Your task to perform on an android device: uninstall "Google Translate" Image 0: 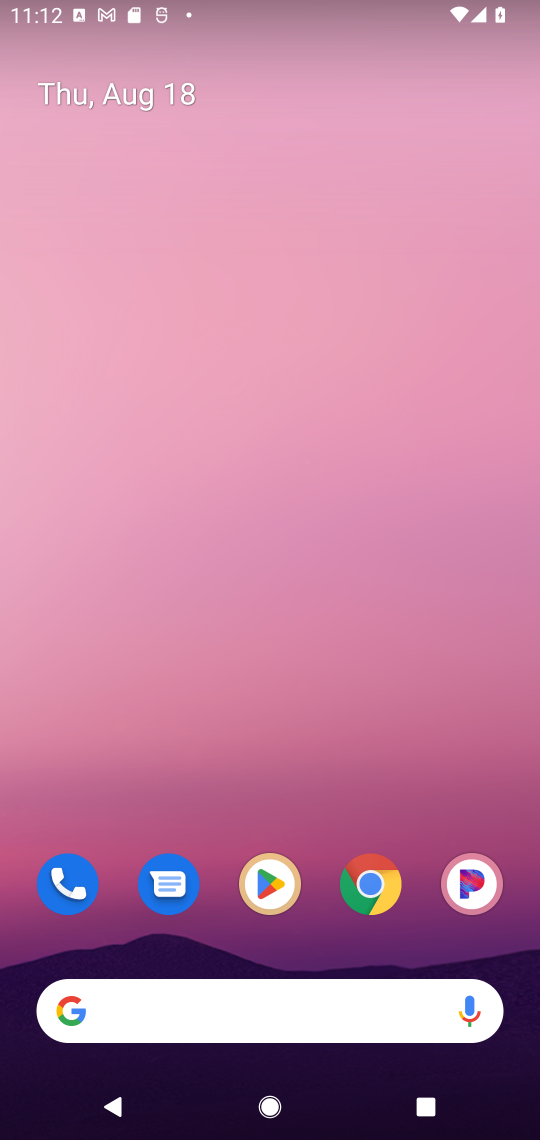
Step 0: drag from (228, 1028) to (314, 20)
Your task to perform on an android device: uninstall "Google Translate" Image 1: 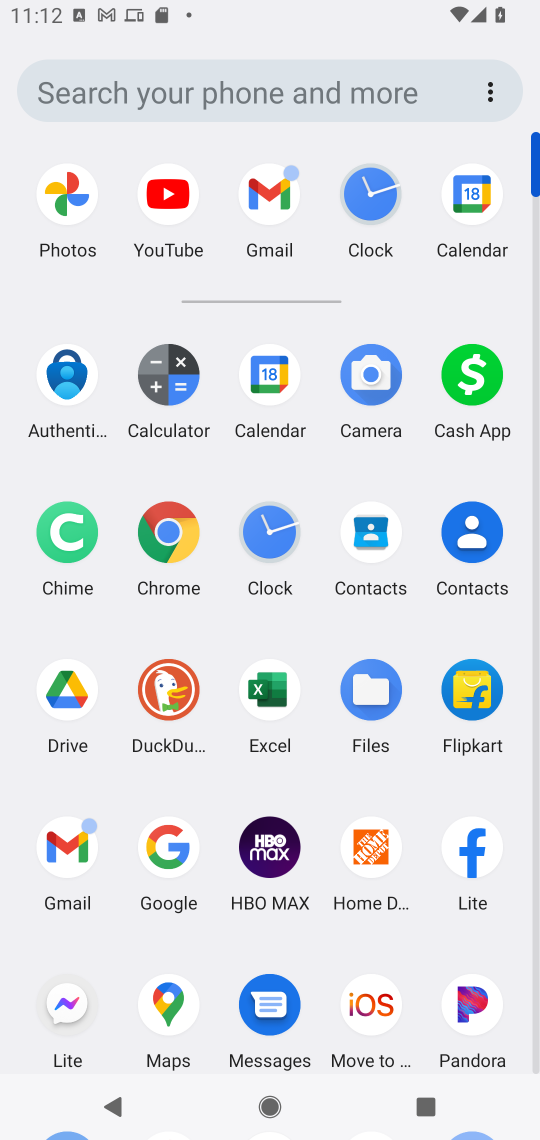
Step 1: drag from (319, 956) to (284, 457)
Your task to perform on an android device: uninstall "Google Translate" Image 2: 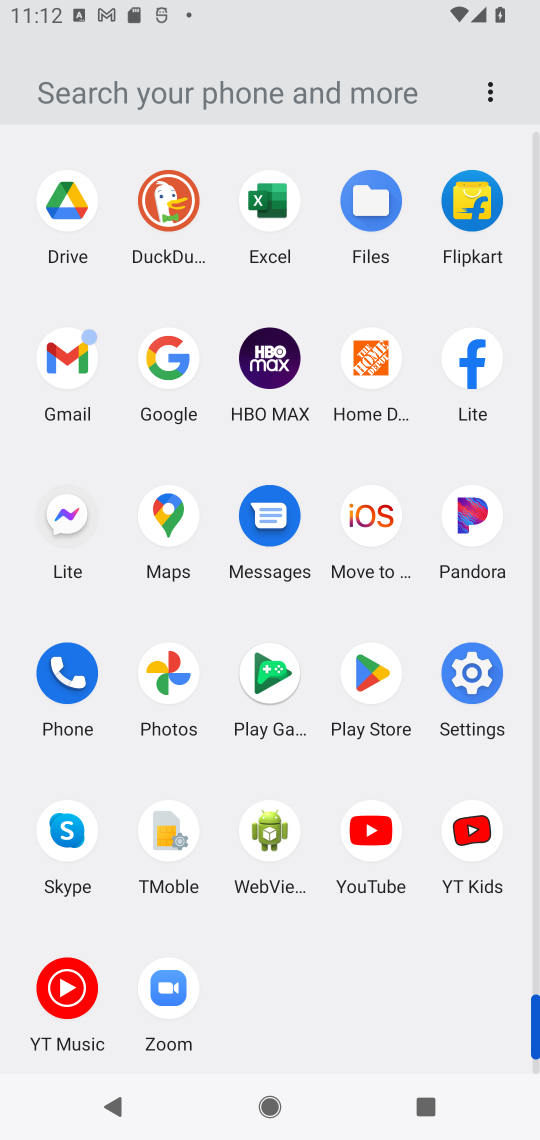
Step 2: click (377, 675)
Your task to perform on an android device: uninstall "Google Translate" Image 3: 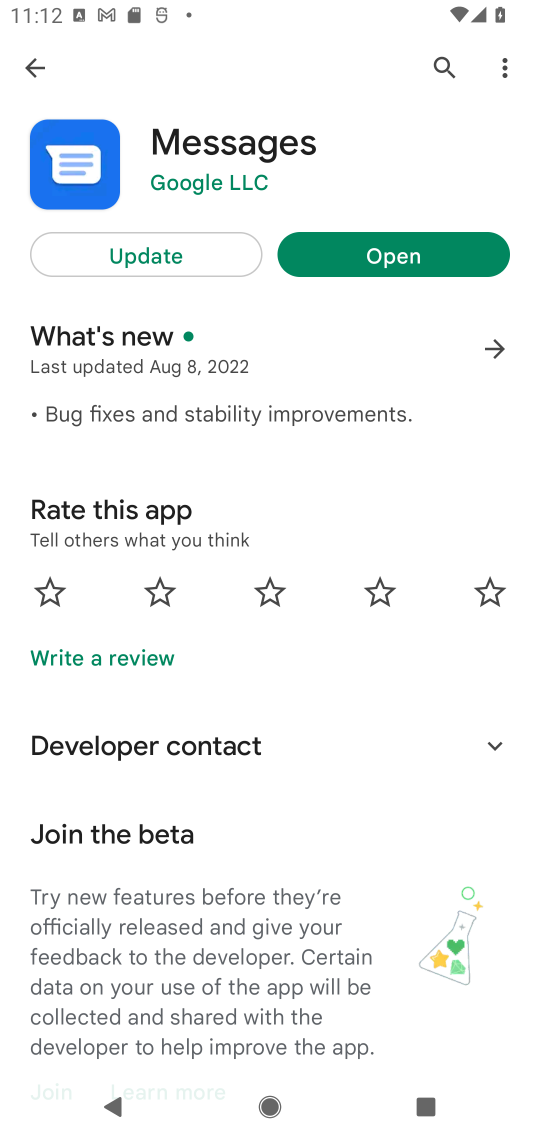
Step 3: press back button
Your task to perform on an android device: uninstall "Google Translate" Image 4: 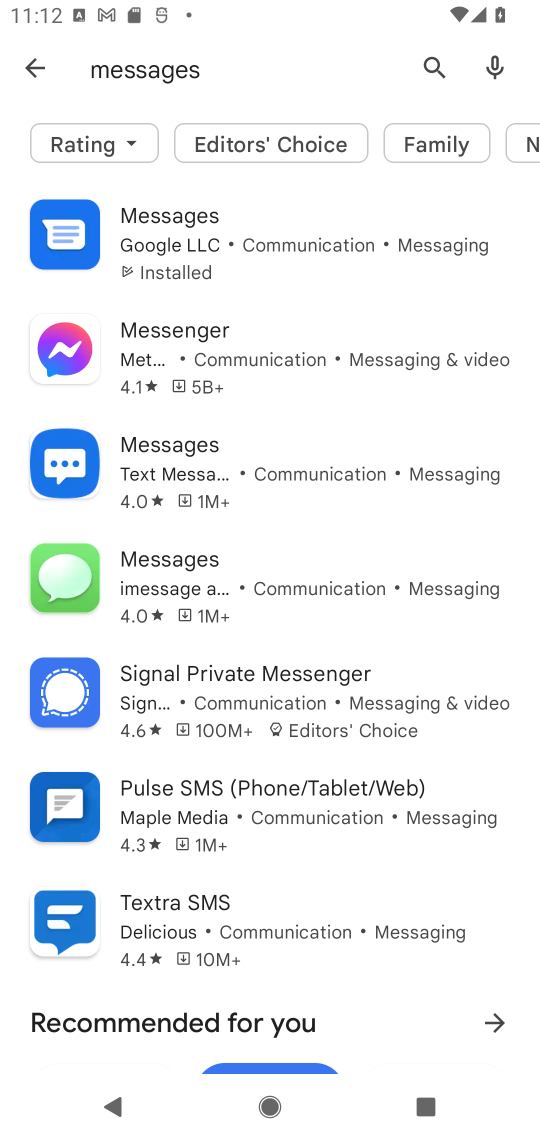
Step 4: press back button
Your task to perform on an android device: uninstall "Google Translate" Image 5: 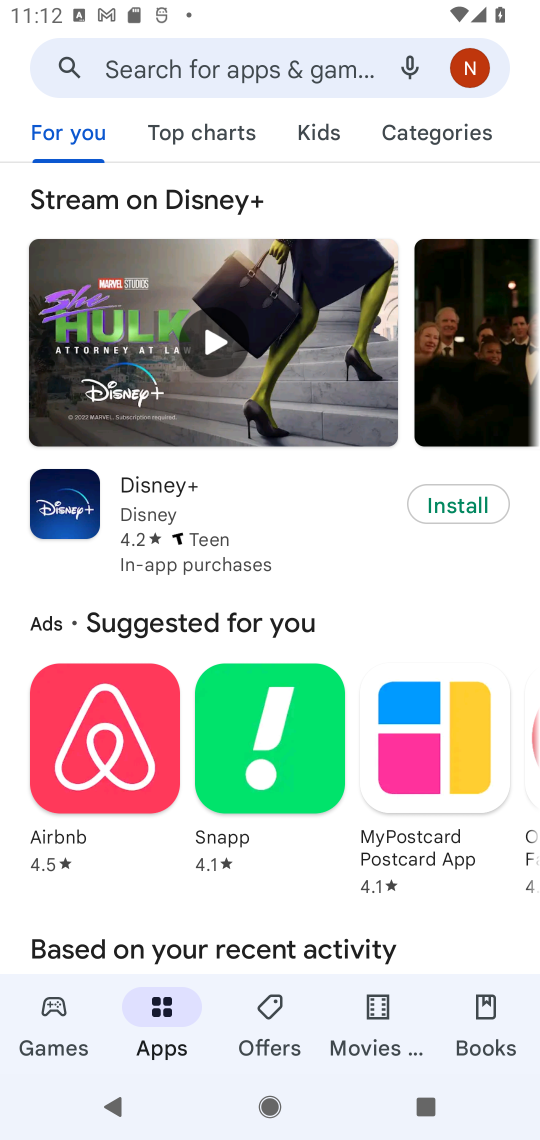
Step 5: click (332, 65)
Your task to perform on an android device: uninstall "Google Translate" Image 6: 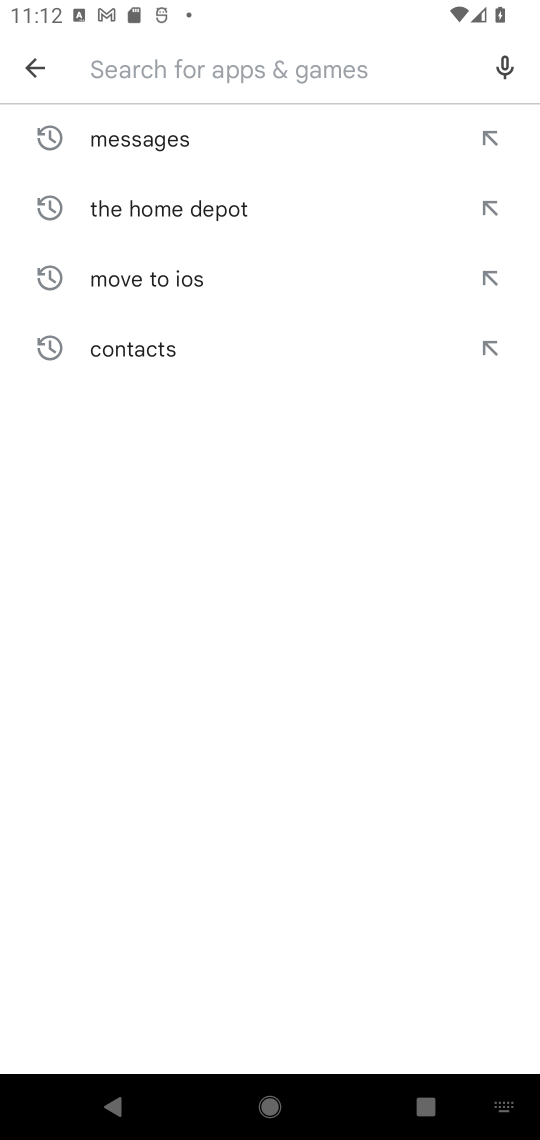
Step 6: type "Google Translate"
Your task to perform on an android device: uninstall "Google Translate" Image 7: 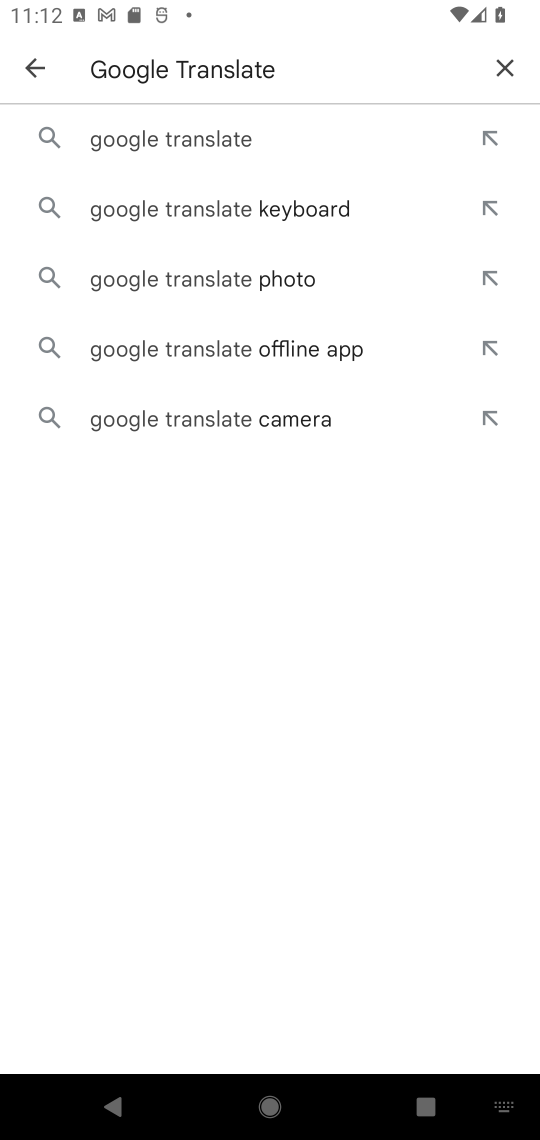
Step 7: click (217, 150)
Your task to perform on an android device: uninstall "Google Translate" Image 8: 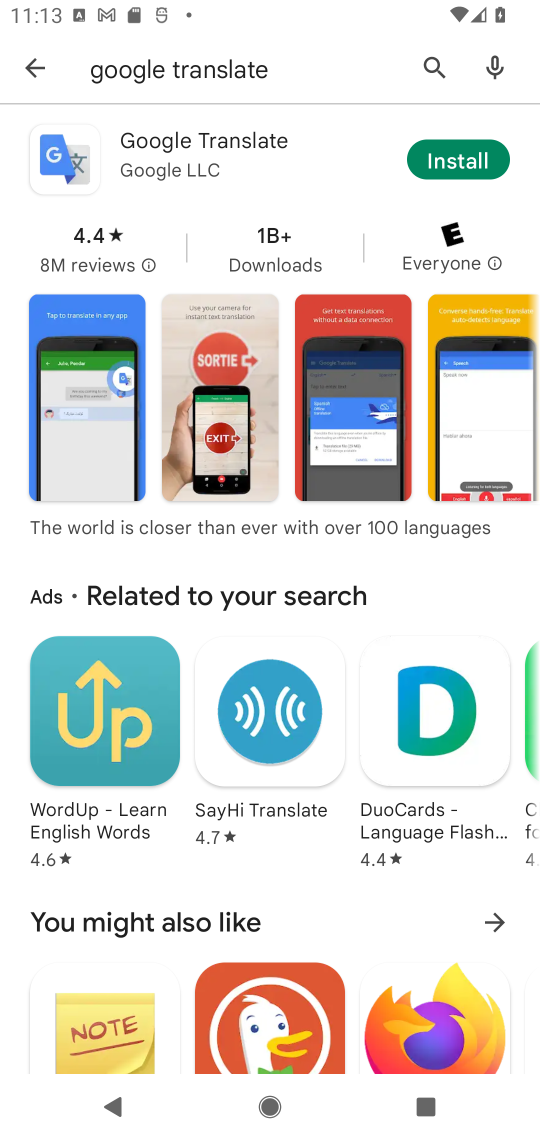
Step 8: task complete